Your task to perform on an android device: change keyboard looks Image 0: 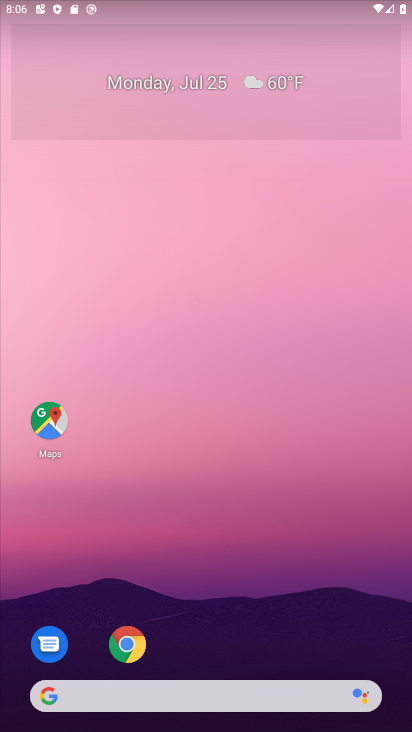
Step 0: drag from (288, 648) to (263, 152)
Your task to perform on an android device: change keyboard looks Image 1: 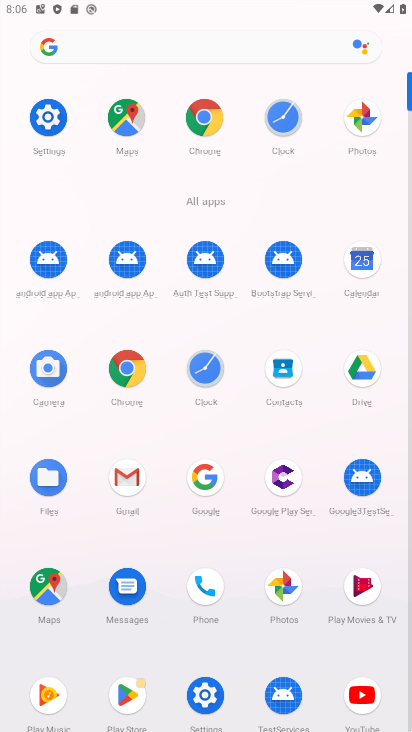
Step 1: click (205, 695)
Your task to perform on an android device: change keyboard looks Image 2: 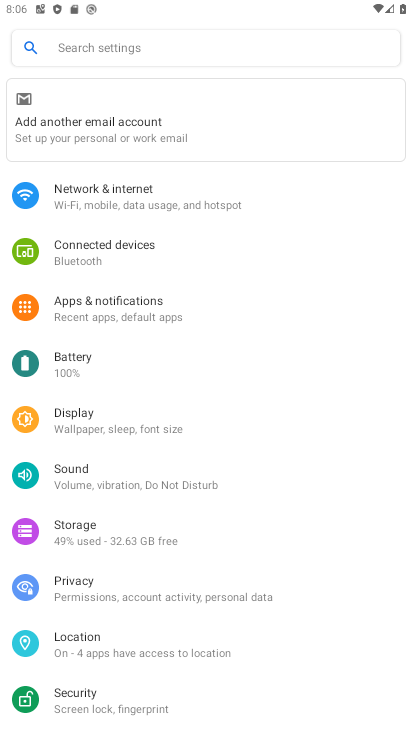
Step 2: click (165, 433)
Your task to perform on an android device: change keyboard looks Image 3: 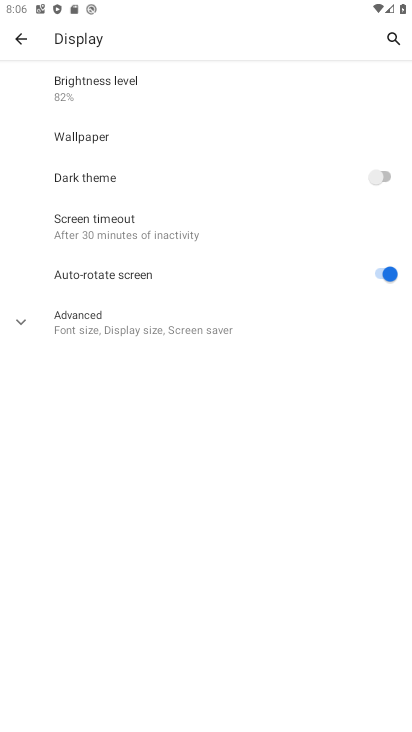
Step 3: task complete